Your task to perform on an android device: Go to wifi settings Image 0: 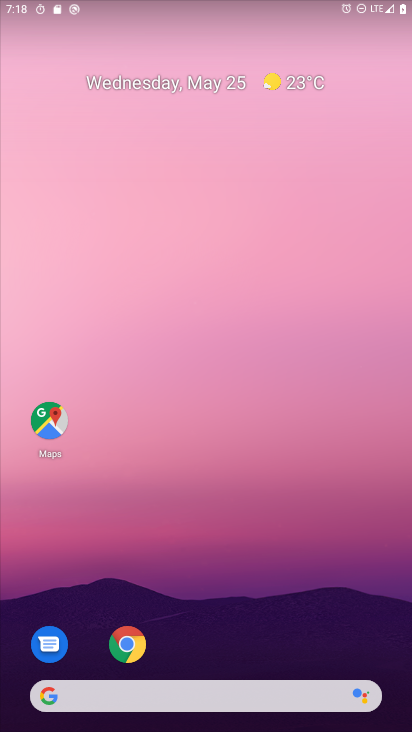
Step 0: drag from (313, 620) to (294, 66)
Your task to perform on an android device: Go to wifi settings Image 1: 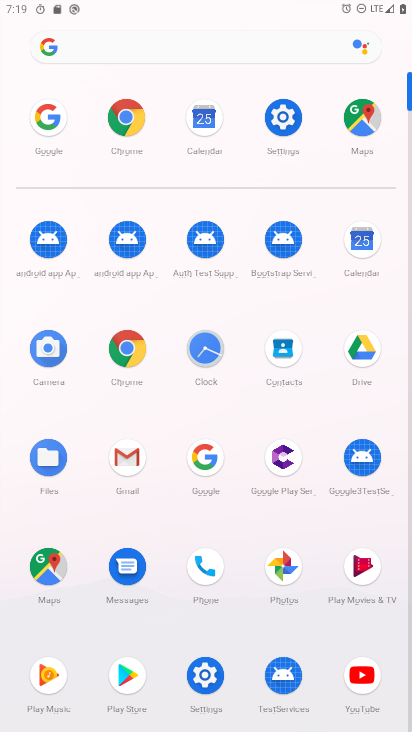
Step 1: click (206, 684)
Your task to perform on an android device: Go to wifi settings Image 2: 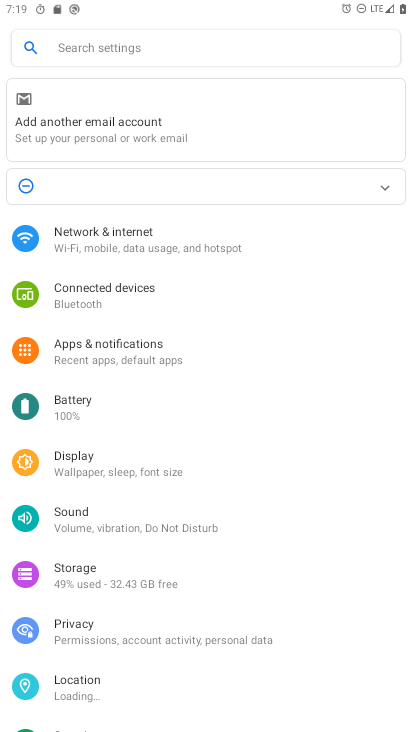
Step 2: click (146, 259)
Your task to perform on an android device: Go to wifi settings Image 3: 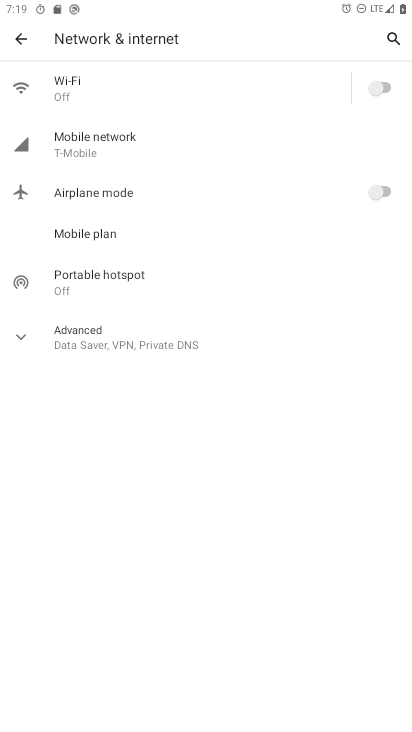
Step 3: click (144, 102)
Your task to perform on an android device: Go to wifi settings Image 4: 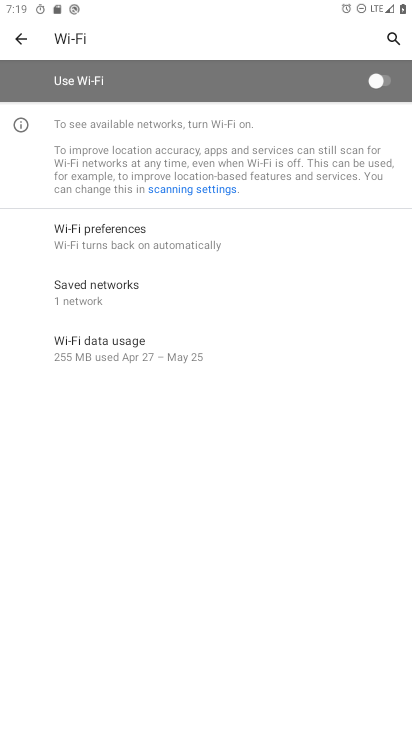
Step 4: task complete